Your task to perform on an android device: turn on airplane mode Image 0: 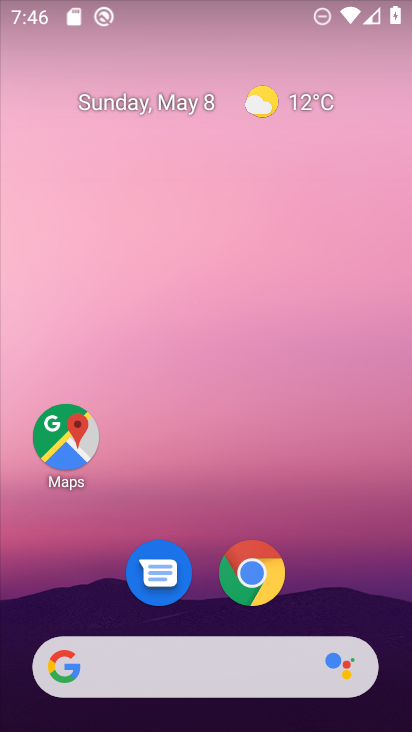
Step 0: drag from (367, 586) to (342, 0)
Your task to perform on an android device: turn on airplane mode Image 1: 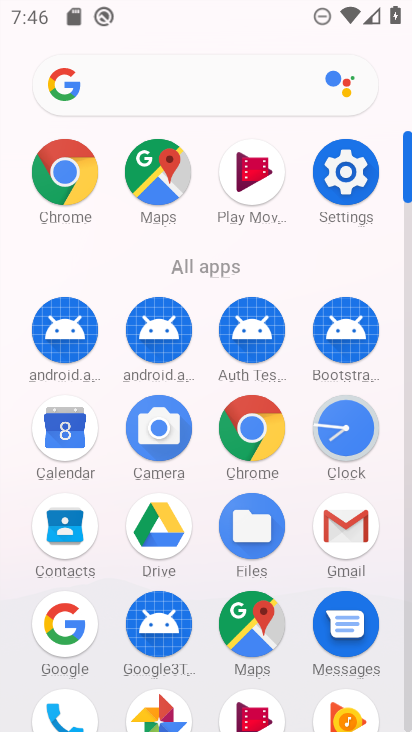
Step 1: click (356, 164)
Your task to perform on an android device: turn on airplane mode Image 2: 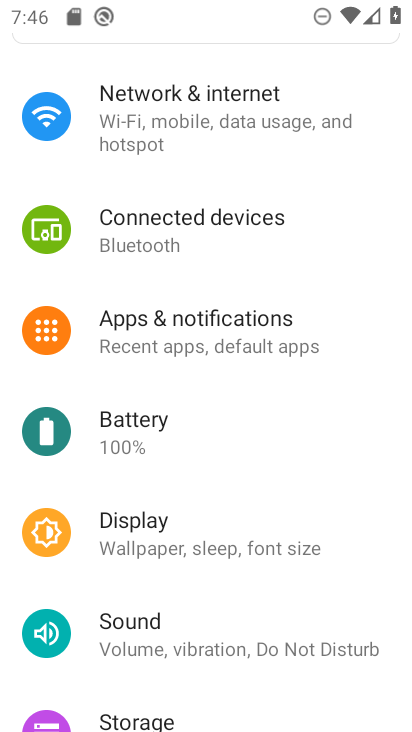
Step 2: click (167, 138)
Your task to perform on an android device: turn on airplane mode Image 3: 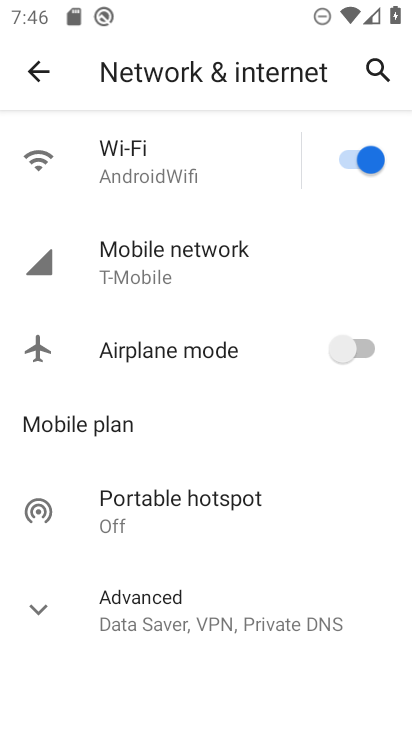
Step 3: click (360, 343)
Your task to perform on an android device: turn on airplane mode Image 4: 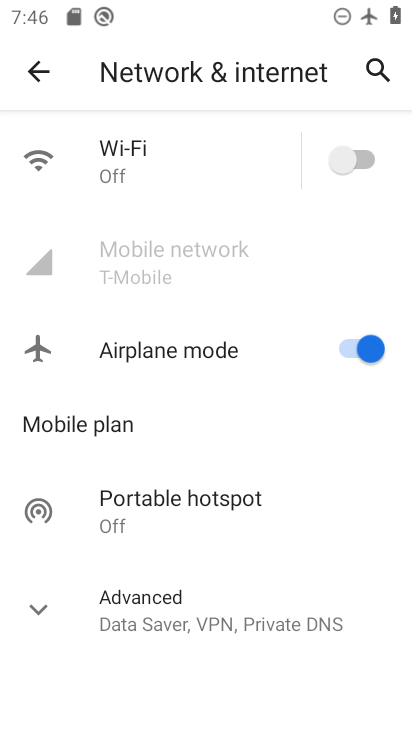
Step 4: task complete